Your task to perform on an android device: find which apps use the phone's location Image 0: 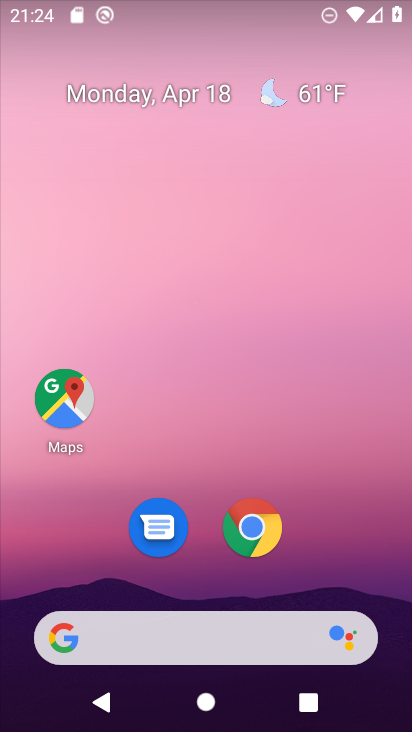
Step 0: drag from (233, 443) to (238, 521)
Your task to perform on an android device: find which apps use the phone's location Image 1: 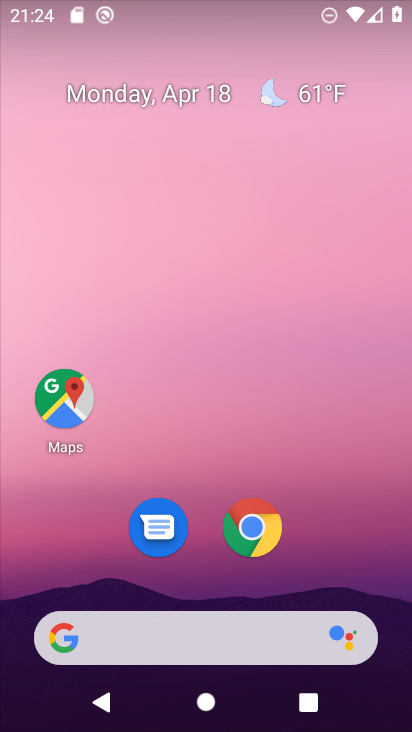
Step 1: drag from (204, 14) to (246, 703)
Your task to perform on an android device: find which apps use the phone's location Image 2: 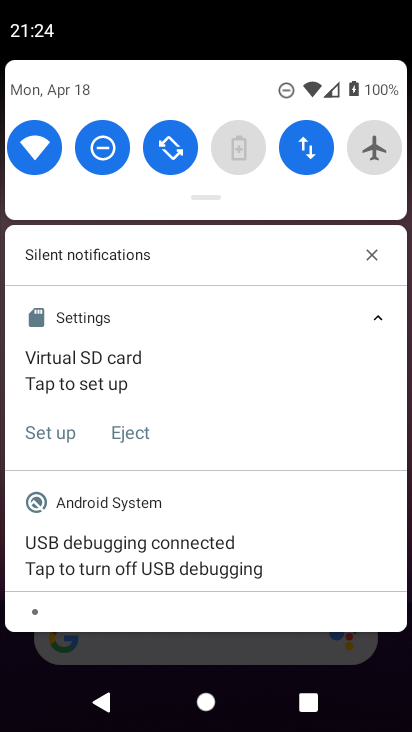
Step 2: drag from (217, 75) to (187, 717)
Your task to perform on an android device: find which apps use the phone's location Image 3: 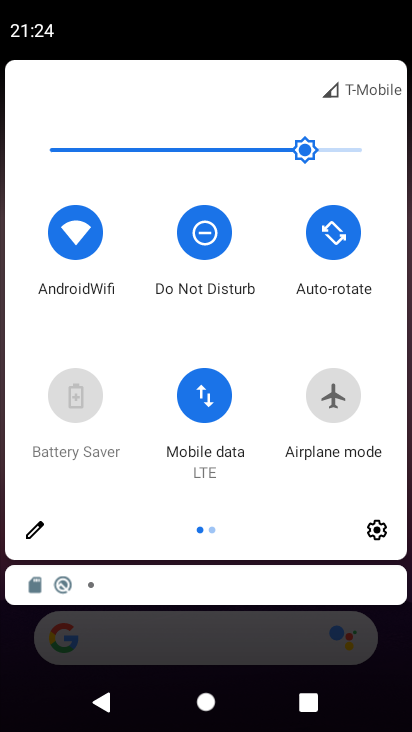
Step 3: click (374, 524)
Your task to perform on an android device: find which apps use the phone's location Image 4: 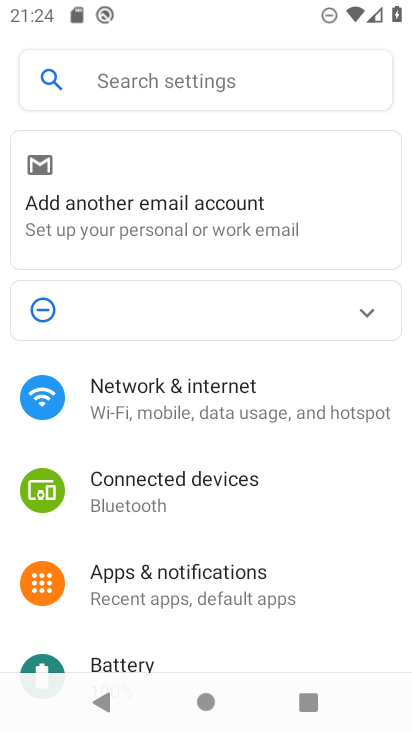
Step 4: drag from (211, 636) to (227, 205)
Your task to perform on an android device: find which apps use the phone's location Image 5: 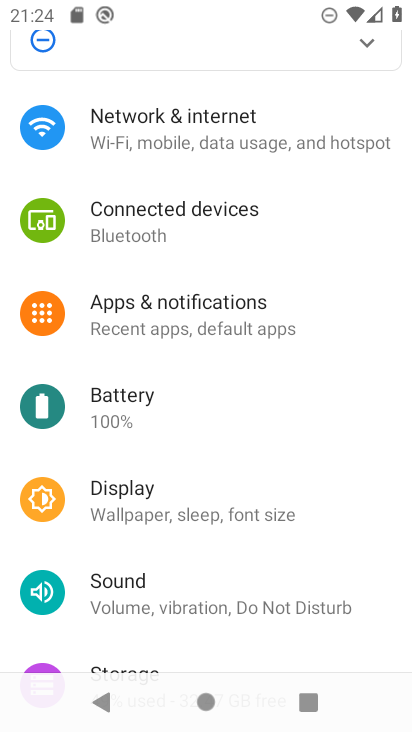
Step 5: drag from (99, 616) to (181, 74)
Your task to perform on an android device: find which apps use the phone's location Image 6: 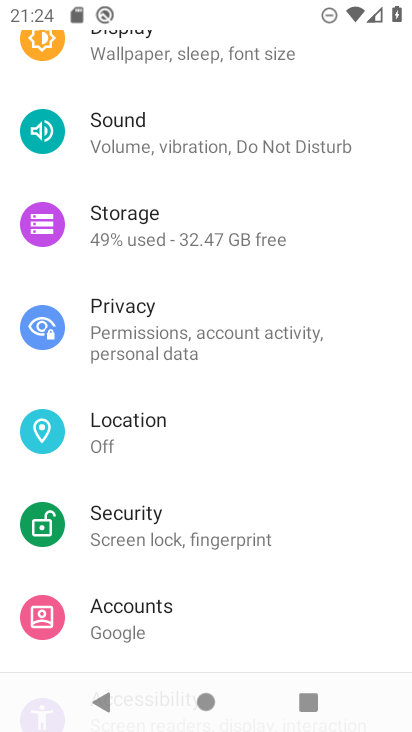
Step 6: click (195, 450)
Your task to perform on an android device: find which apps use the phone's location Image 7: 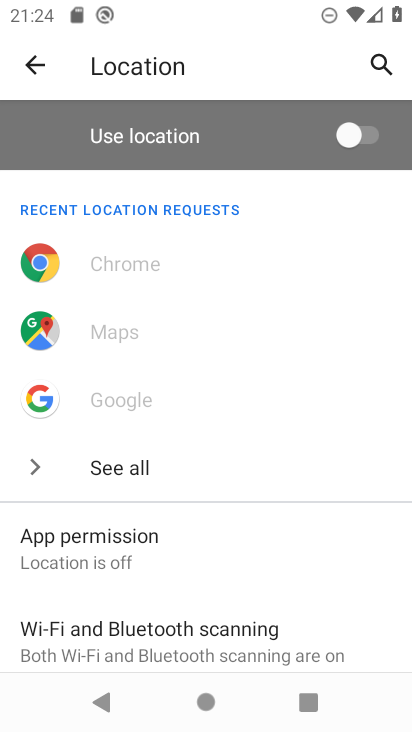
Step 7: click (160, 462)
Your task to perform on an android device: find which apps use the phone's location Image 8: 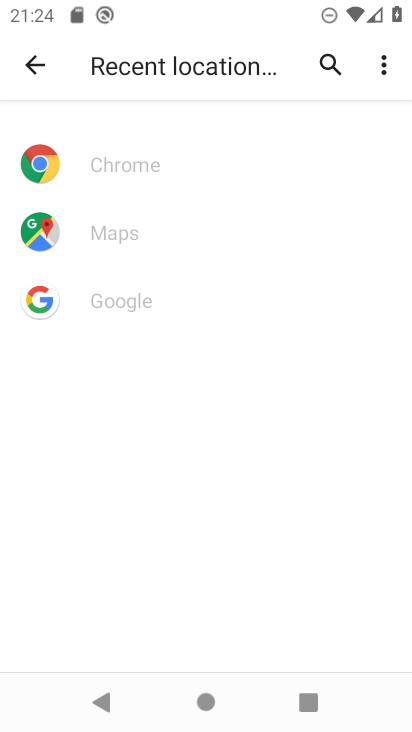
Step 8: task complete